Your task to perform on an android device: add a contact in the contacts app Image 0: 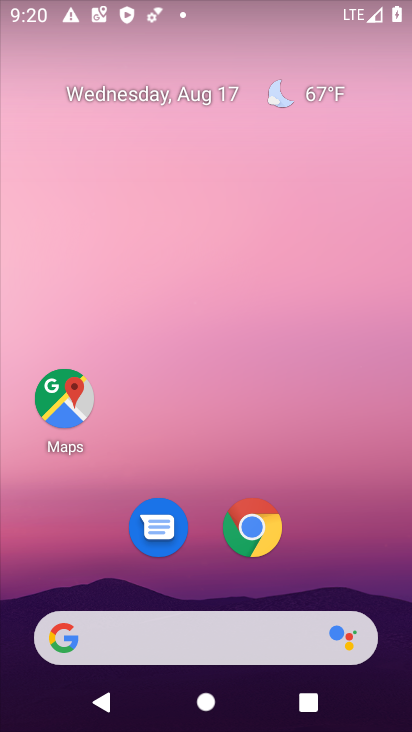
Step 0: drag from (187, 593) to (282, 53)
Your task to perform on an android device: add a contact in the contacts app Image 1: 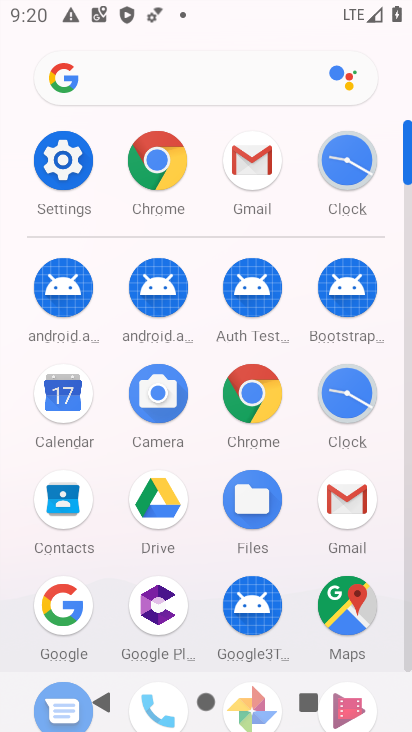
Step 1: drag from (105, 565) to (134, 101)
Your task to perform on an android device: add a contact in the contacts app Image 2: 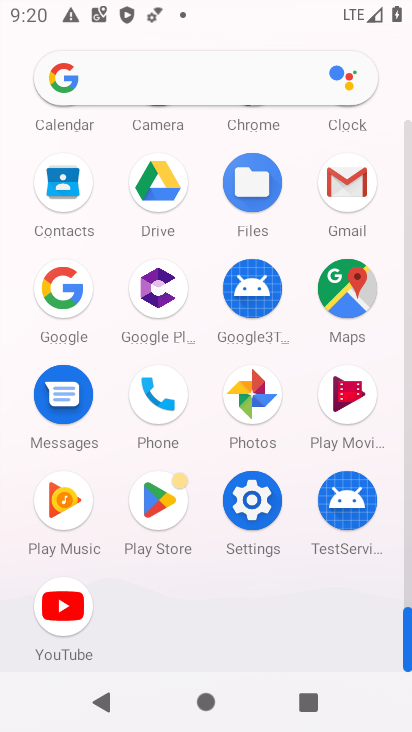
Step 2: click (50, 171)
Your task to perform on an android device: add a contact in the contacts app Image 3: 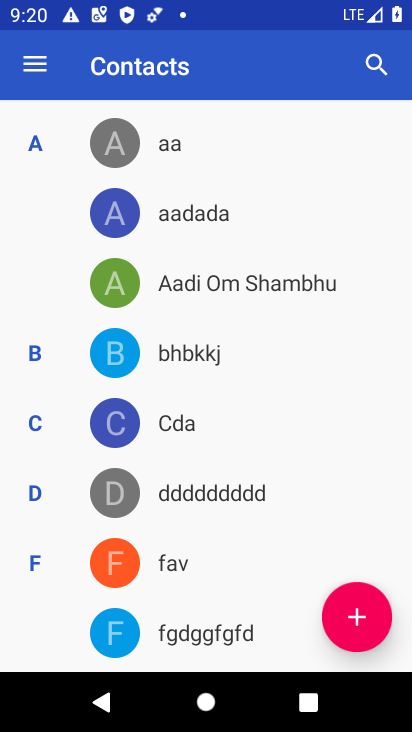
Step 3: click (360, 620)
Your task to perform on an android device: add a contact in the contacts app Image 4: 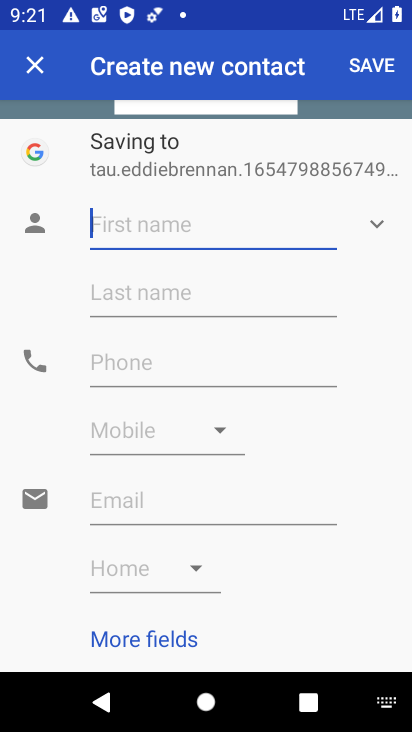
Step 4: type "oijhgfvc"
Your task to perform on an android device: add a contact in the contacts app Image 5: 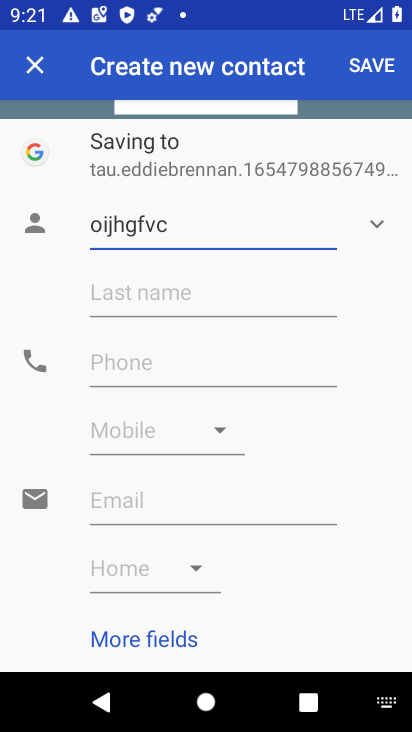
Step 5: click (99, 355)
Your task to perform on an android device: add a contact in the contacts app Image 6: 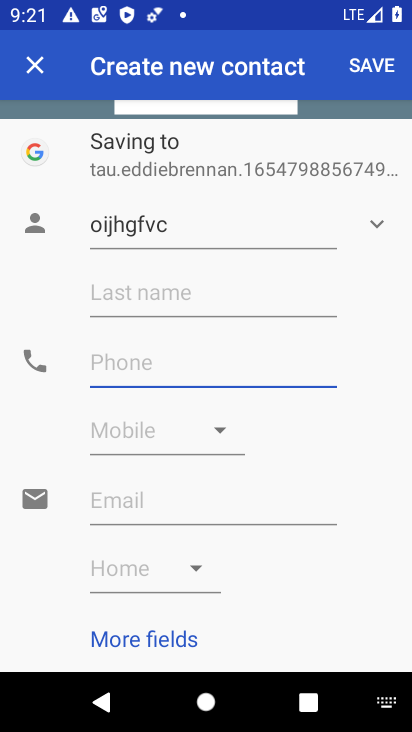
Step 6: type "0987654"
Your task to perform on an android device: add a contact in the contacts app Image 7: 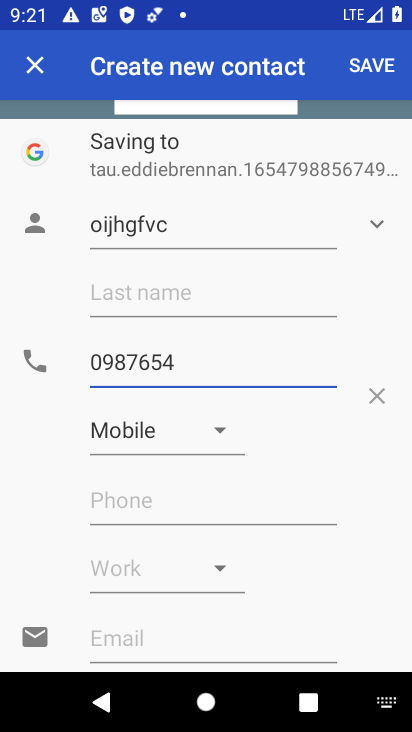
Step 7: click (391, 64)
Your task to perform on an android device: add a contact in the contacts app Image 8: 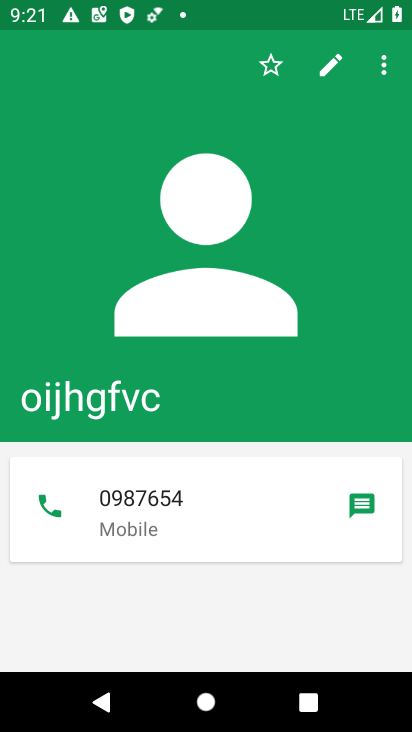
Step 8: task complete